Your task to perform on an android device: move a message to another label in the gmail app Image 0: 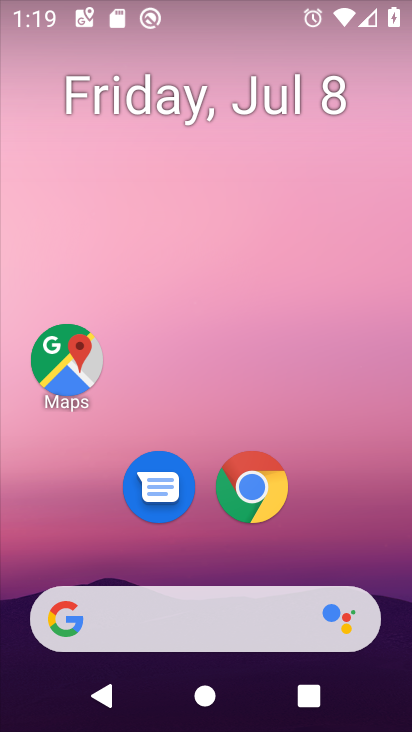
Step 0: drag from (372, 554) to (363, 158)
Your task to perform on an android device: move a message to another label in the gmail app Image 1: 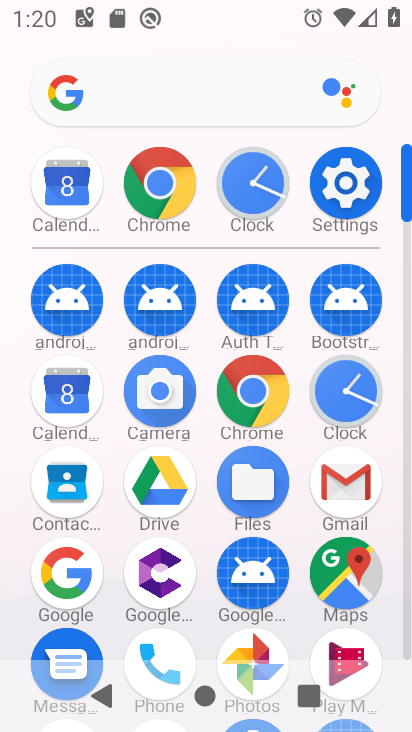
Step 1: click (359, 485)
Your task to perform on an android device: move a message to another label in the gmail app Image 2: 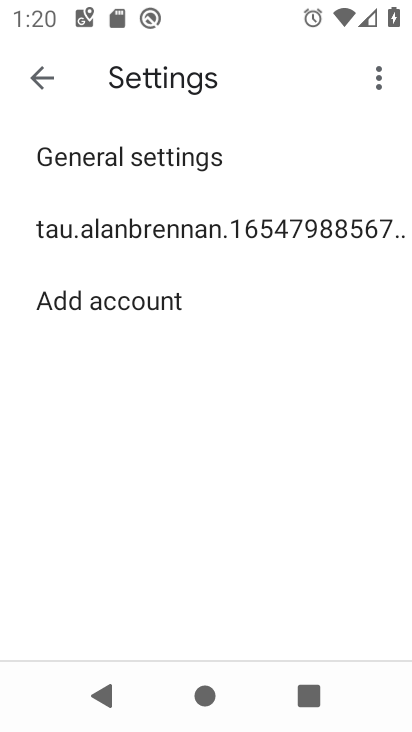
Step 2: press back button
Your task to perform on an android device: move a message to another label in the gmail app Image 3: 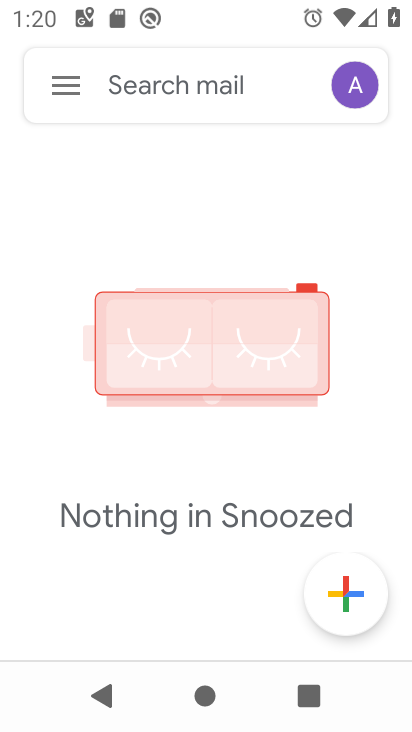
Step 3: click (70, 91)
Your task to perform on an android device: move a message to another label in the gmail app Image 4: 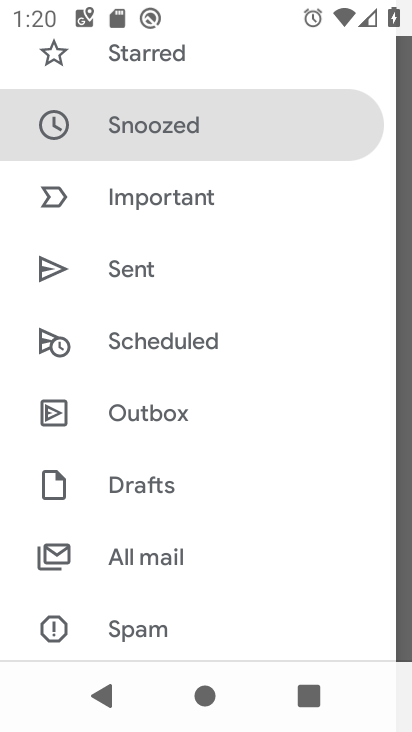
Step 4: drag from (257, 246) to (284, 341)
Your task to perform on an android device: move a message to another label in the gmail app Image 5: 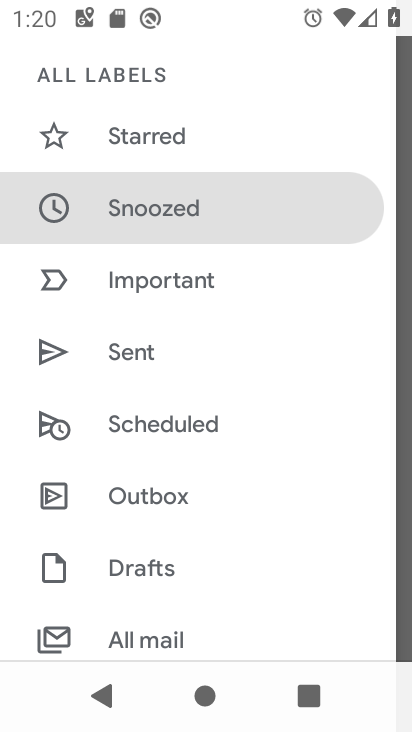
Step 5: drag from (303, 231) to (313, 335)
Your task to perform on an android device: move a message to another label in the gmail app Image 6: 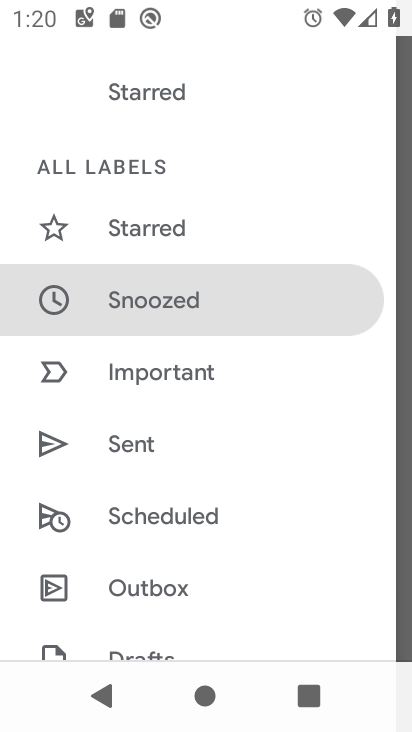
Step 6: drag from (286, 187) to (289, 322)
Your task to perform on an android device: move a message to another label in the gmail app Image 7: 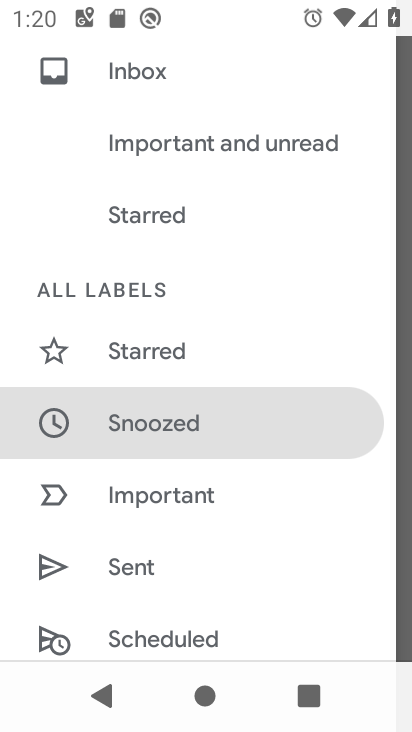
Step 7: drag from (285, 190) to (285, 351)
Your task to perform on an android device: move a message to another label in the gmail app Image 8: 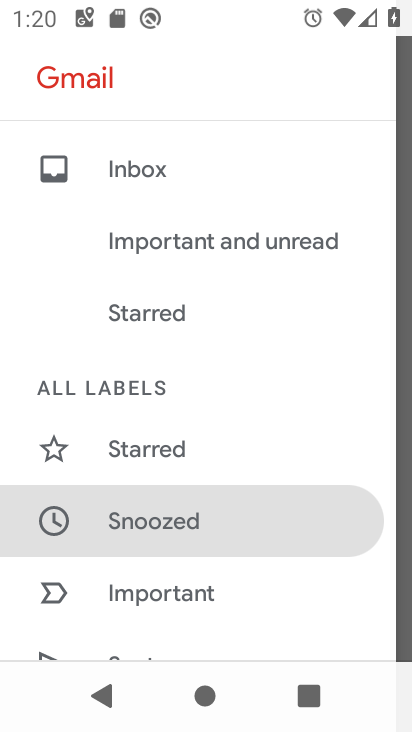
Step 8: click (170, 177)
Your task to perform on an android device: move a message to another label in the gmail app Image 9: 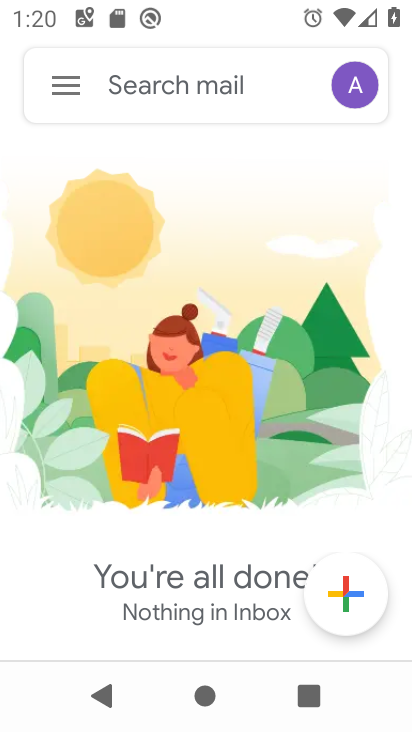
Step 9: task complete